Your task to perform on an android device: toggle sleep mode Image 0: 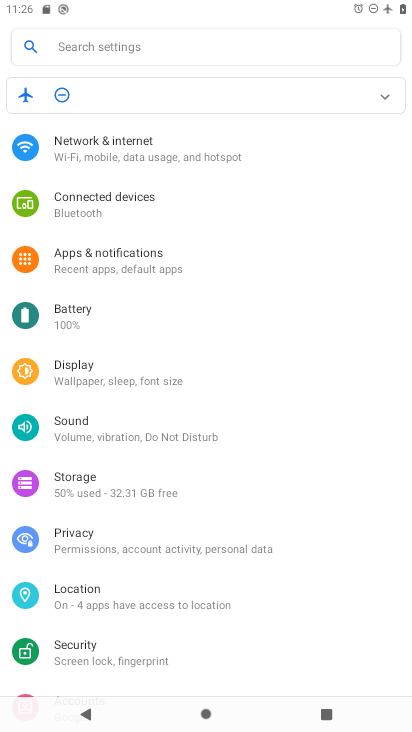
Step 0: click (105, 378)
Your task to perform on an android device: toggle sleep mode Image 1: 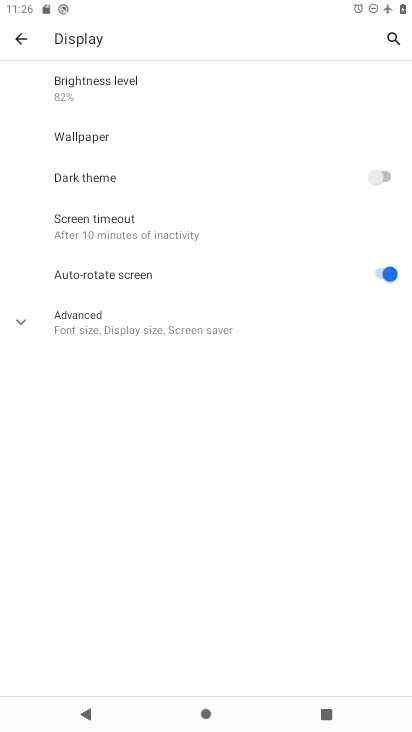
Step 1: click (140, 231)
Your task to perform on an android device: toggle sleep mode Image 2: 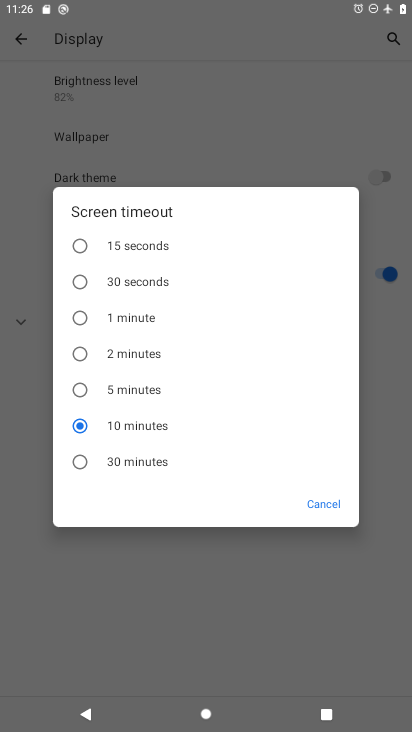
Step 2: click (128, 460)
Your task to perform on an android device: toggle sleep mode Image 3: 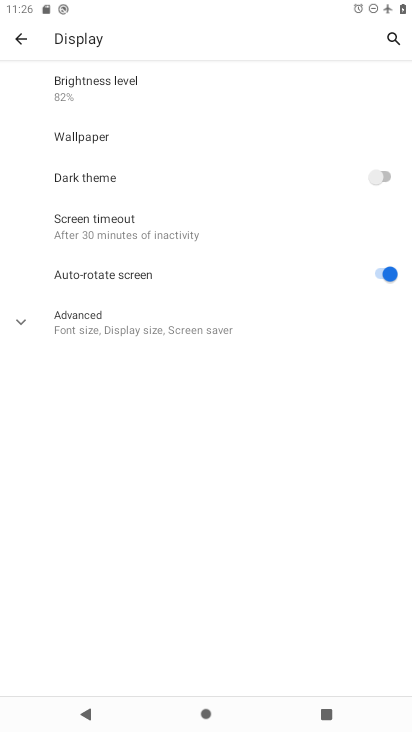
Step 3: task complete